Your task to perform on an android device: Open the calendar app, open the side menu, and click the "Day" option Image 0: 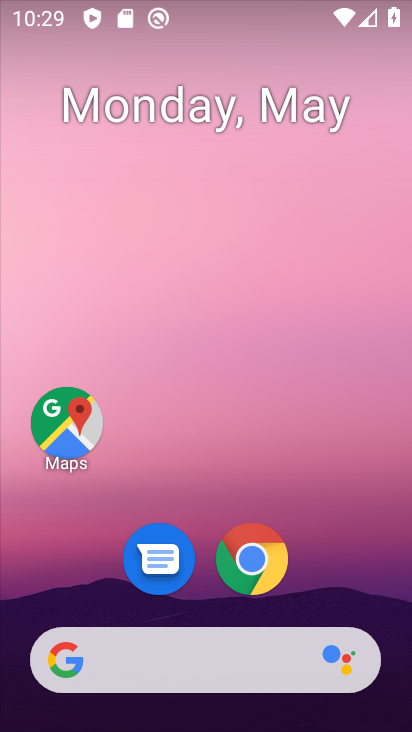
Step 0: drag from (133, 485) to (168, 0)
Your task to perform on an android device: Open the calendar app, open the side menu, and click the "Day" option Image 1: 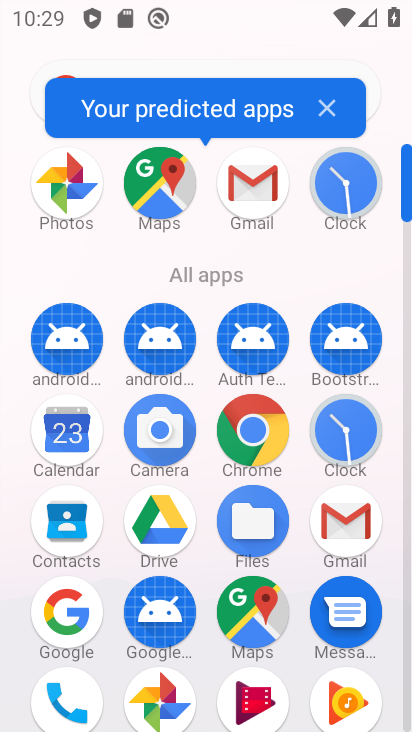
Step 1: click (60, 428)
Your task to perform on an android device: Open the calendar app, open the side menu, and click the "Day" option Image 2: 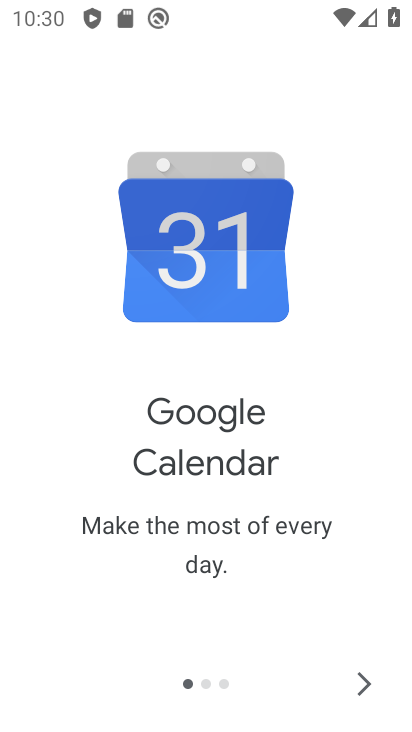
Step 2: click (363, 682)
Your task to perform on an android device: Open the calendar app, open the side menu, and click the "Day" option Image 3: 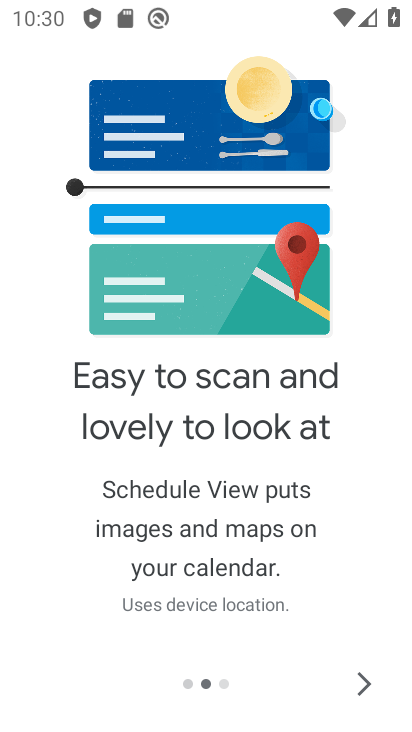
Step 3: click (363, 682)
Your task to perform on an android device: Open the calendar app, open the side menu, and click the "Day" option Image 4: 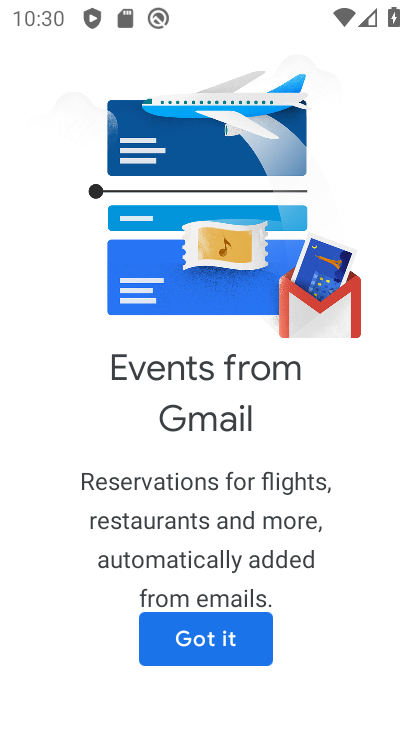
Step 4: click (363, 682)
Your task to perform on an android device: Open the calendar app, open the side menu, and click the "Day" option Image 5: 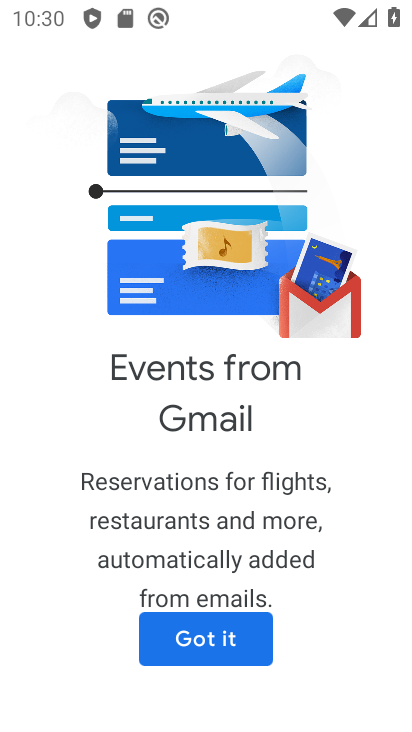
Step 5: click (238, 636)
Your task to perform on an android device: Open the calendar app, open the side menu, and click the "Day" option Image 6: 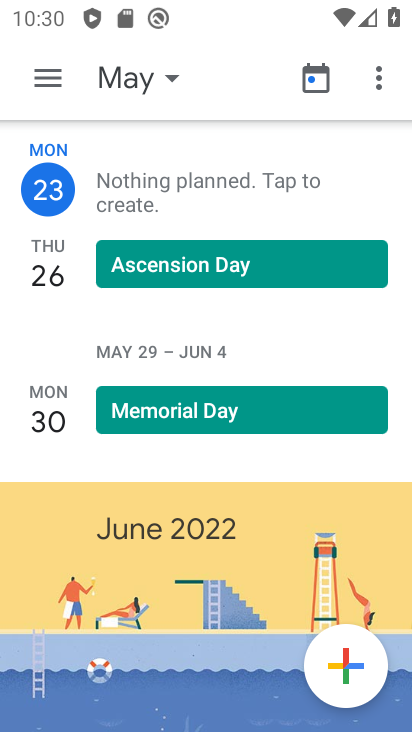
Step 6: click (54, 79)
Your task to perform on an android device: Open the calendar app, open the side menu, and click the "Day" option Image 7: 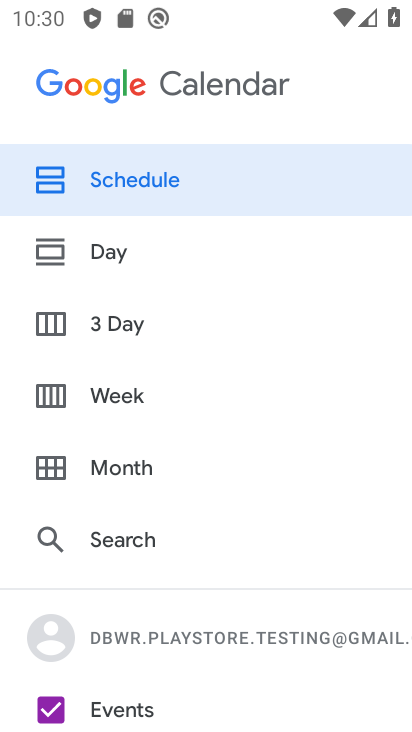
Step 7: click (138, 264)
Your task to perform on an android device: Open the calendar app, open the side menu, and click the "Day" option Image 8: 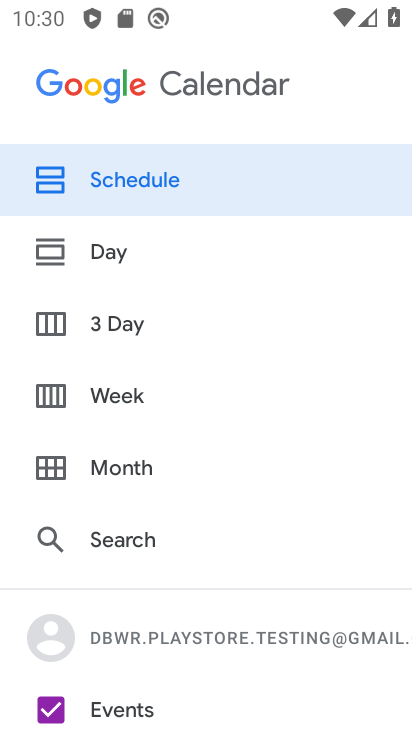
Step 8: click (121, 242)
Your task to perform on an android device: Open the calendar app, open the side menu, and click the "Day" option Image 9: 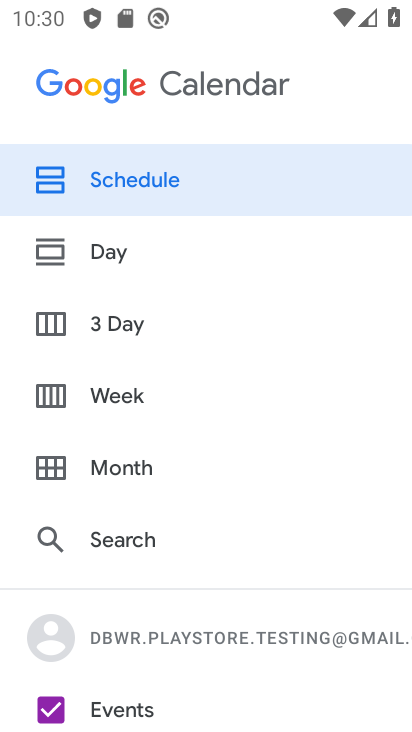
Step 9: click (108, 266)
Your task to perform on an android device: Open the calendar app, open the side menu, and click the "Day" option Image 10: 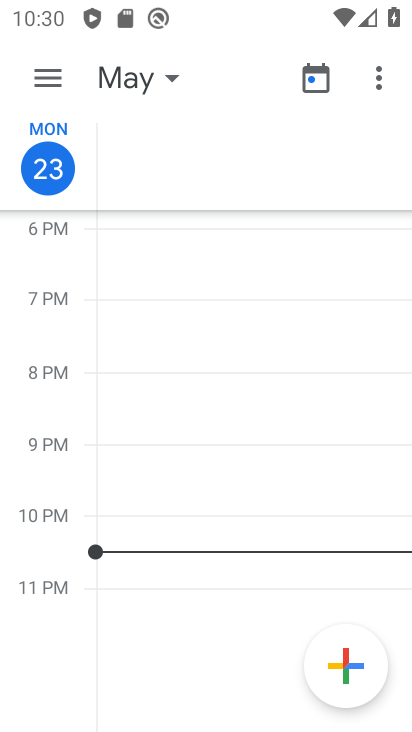
Step 10: click (38, 57)
Your task to perform on an android device: Open the calendar app, open the side menu, and click the "Day" option Image 11: 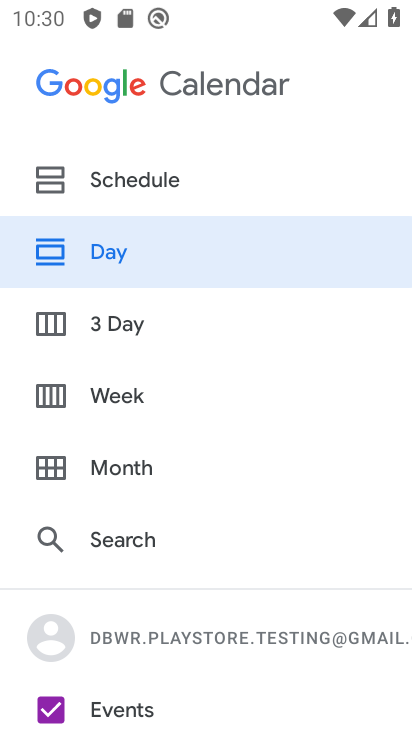
Step 11: click (46, 70)
Your task to perform on an android device: Open the calendar app, open the side menu, and click the "Day" option Image 12: 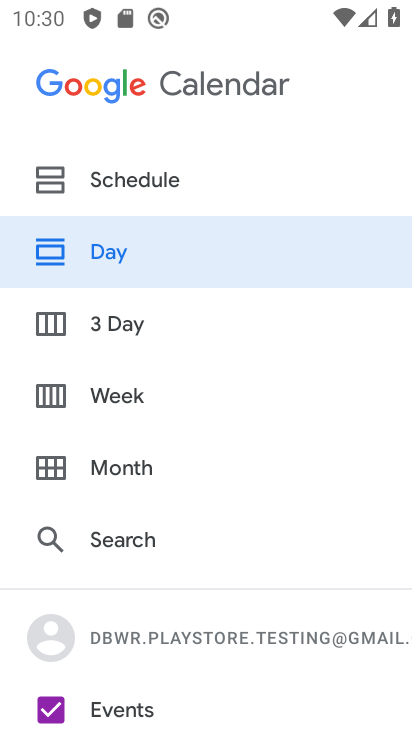
Step 12: task complete